Your task to perform on an android device: Go to Amazon Image 0: 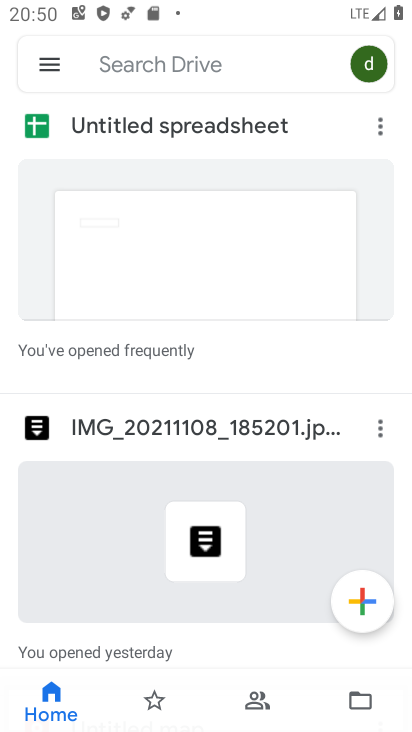
Step 0: press home button
Your task to perform on an android device: Go to Amazon Image 1: 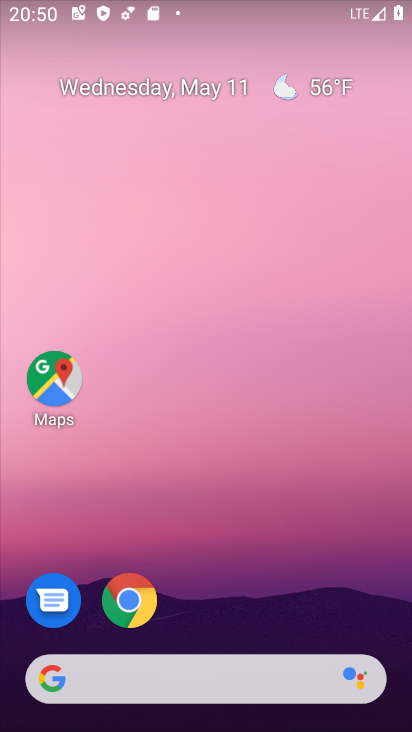
Step 1: click (130, 601)
Your task to perform on an android device: Go to Amazon Image 2: 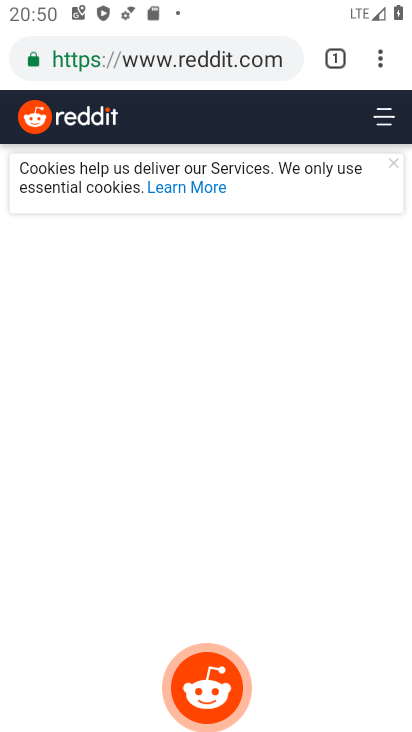
Step 2: click (242, 61)
Your task to perform on an android device: Go to Amazon Image 3: 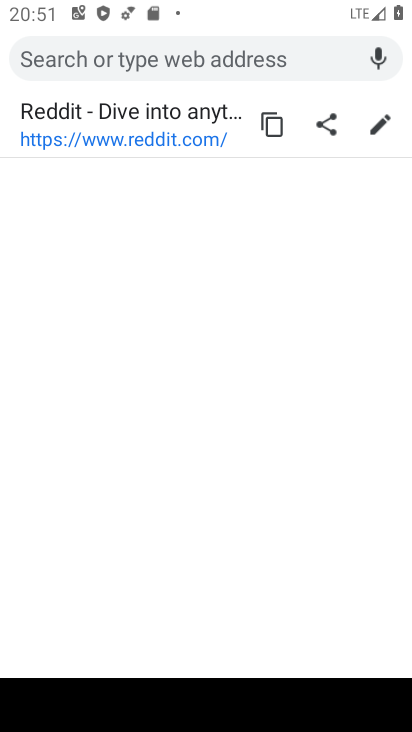
Step 3: type "Amazon"
Your task to perform on an android device: Go to Amazon Image 4: 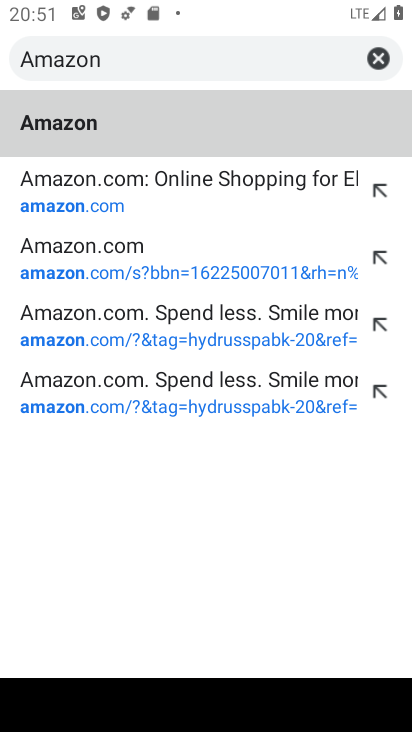
Step 4: click (81, 130)
Your task to perform on an android device: Go to Amazon Image 5: 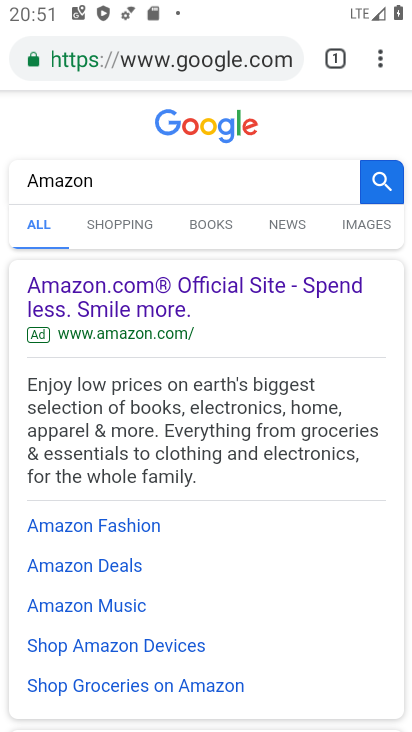
Step 5: click (162, 328)
Your task to perform on an android device: Go to Amazon Image 6: 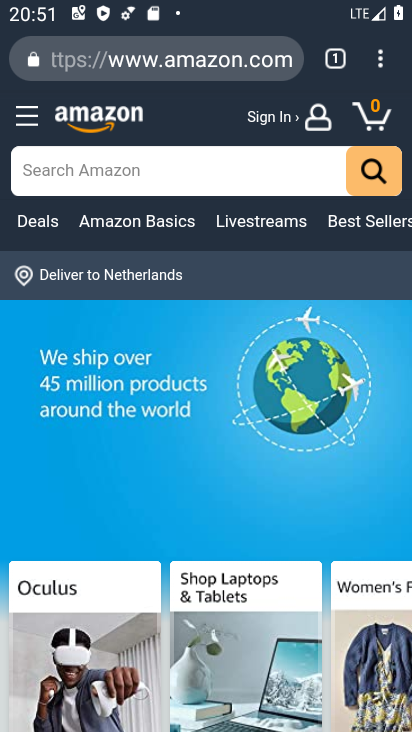
Step 6: task complete